Your task to perform on an android device: search for starred emails in the gmail app Image 0: 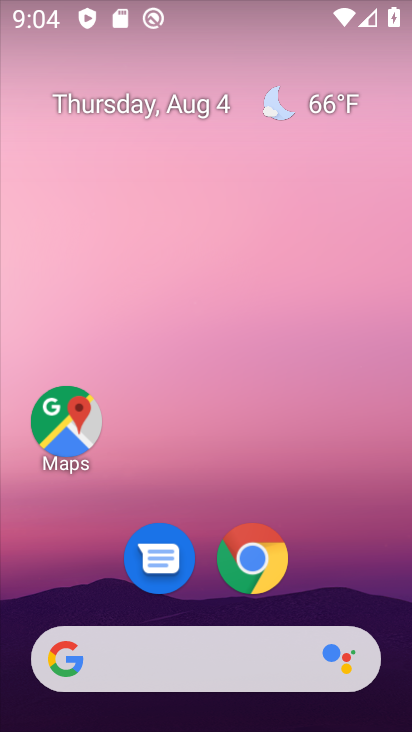
Step 0: drag from (353, 545) to (354, 38)
Your task to perform on an android device: search for starred emails in the gmail app Image 1: 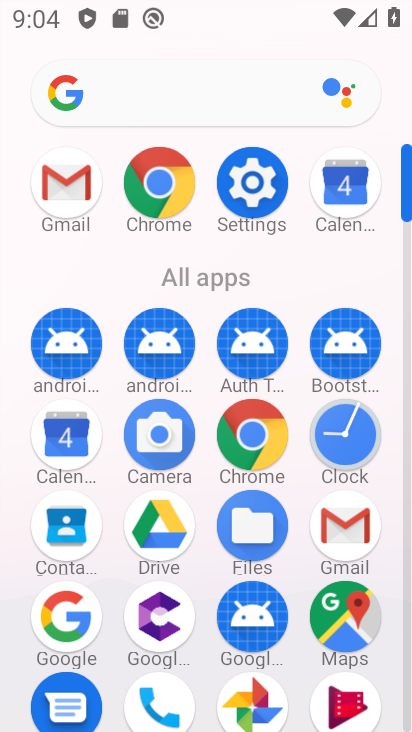
Step 1: click (358, 528)
Your task to perform on an android device: search for starred emails in the gmail app Image 2: 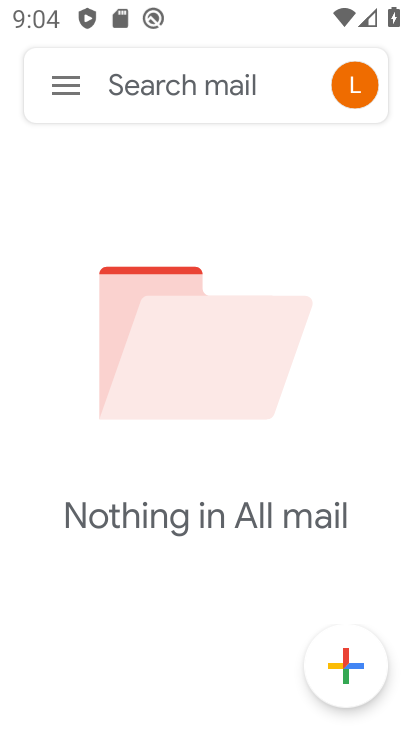
Step 2: click (50, 72)
Your task to perform on an android device: search for starred emails in the gmail app Image 3: 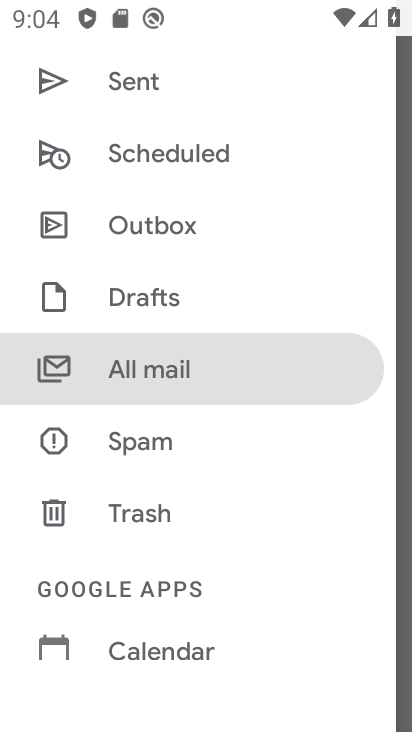
Step 3: drag from (194, 180) to (166, 467)
Your task to perform on an android device: search for starred emails in the gmail app Image 4: 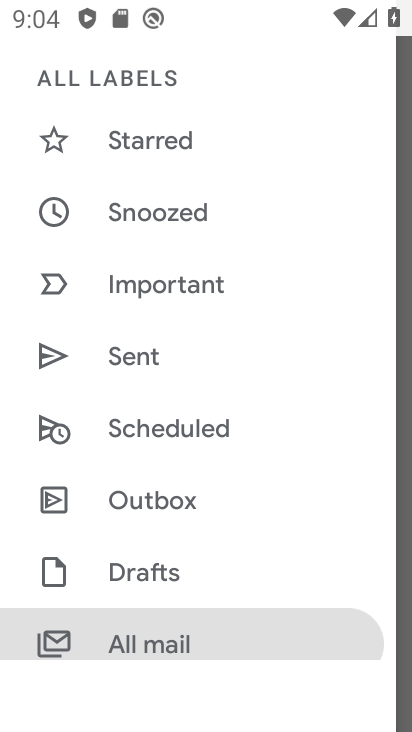
Step 4: click (147, 145)
Your task to perform on an android device: search for starred emails in the gmail app Image 5: 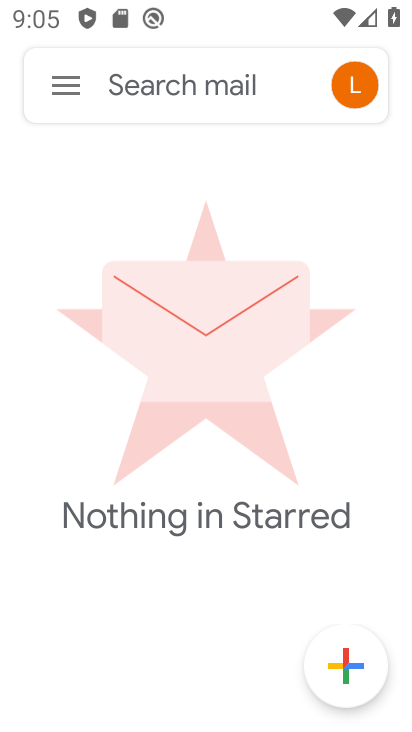
Step 5: task complete